Your task to perform on an android device: change keyboard looks Image 0: 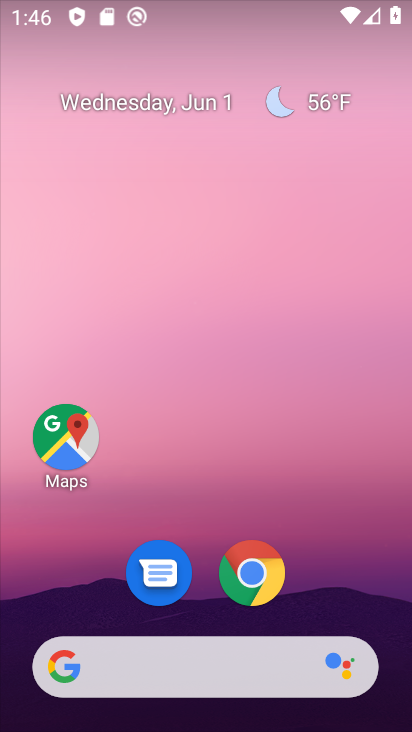
Step 0: drag from (195, 601) to (206, 195)
Your task to perform on an android device: change keyboard looks Image 1: 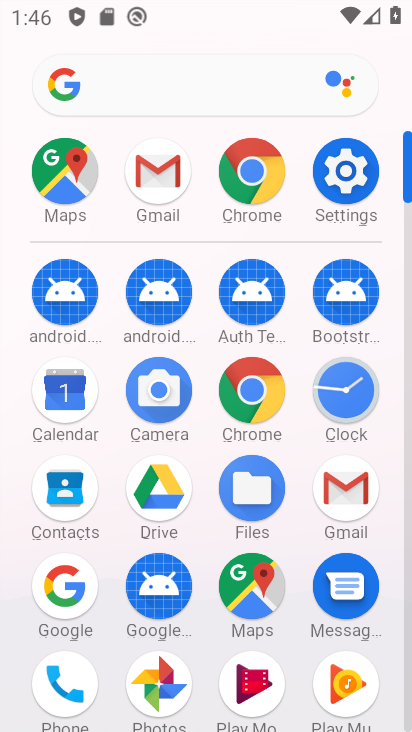
Step 1: click (349, 134)
Your task to perform on an android device: change keyboard looks Image 2: 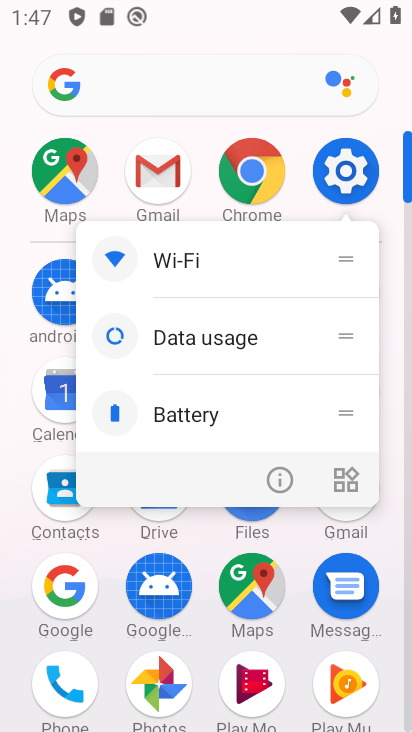
Step 2: click (293, 481)
Your task to perform on an android device: change keyboard looks Image 3: 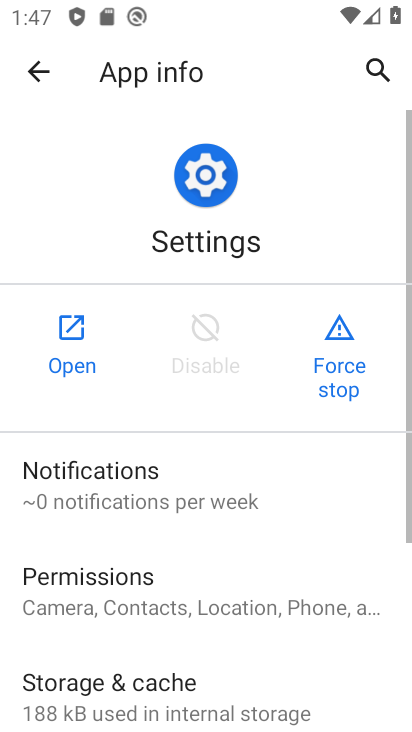
Step 3: click (70, 387)
Your task to perform on an android device: change keyboard looks Image 4: 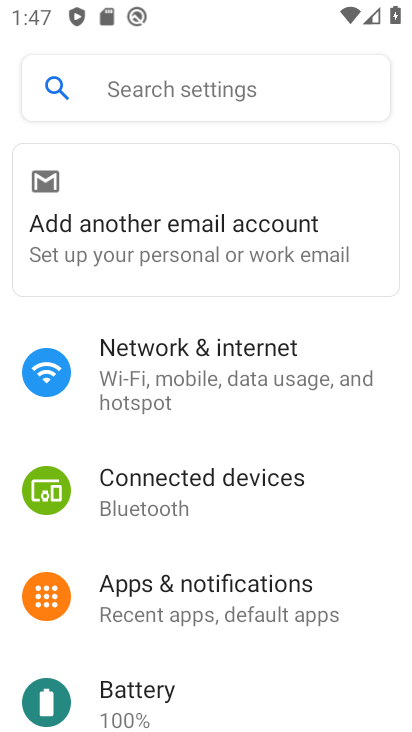
Step 4: drag from (173, 591) to (248, 51)
Your task to perform on an android device: change keyboard looks Image 5: 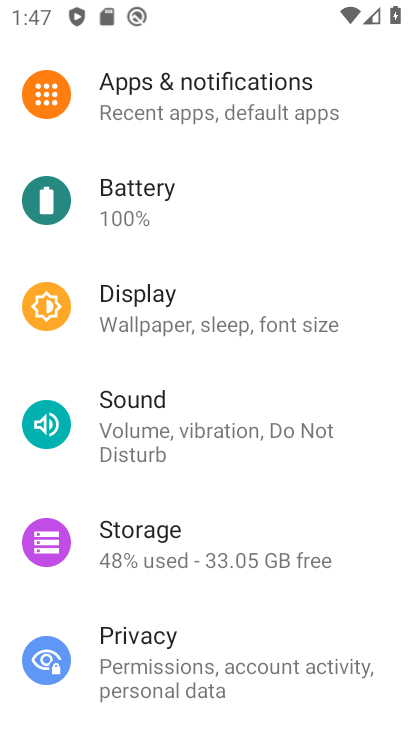
Step 5: drag from (191, 620) to (262, 190)
Your task to perform on an android device: change keyboard looks Image 6: 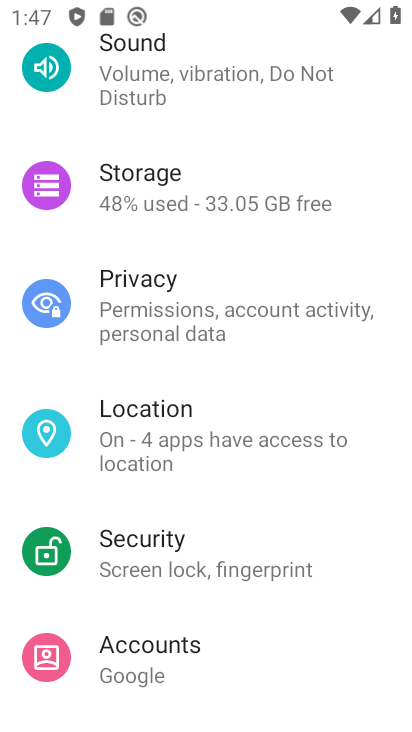
Step 6: drag from (182, 643) to (204, 141)
Your task to perform on an android device: change keyboard looks Image 7: 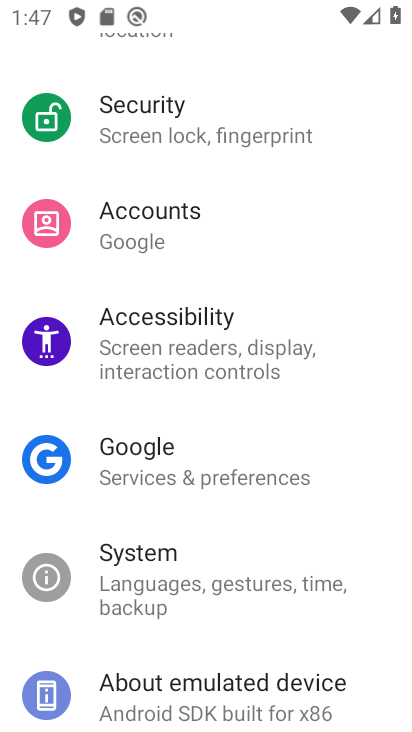
Step 7: click (159, 594)
Your task to perform on an android device: change keyboard looks Image 8: 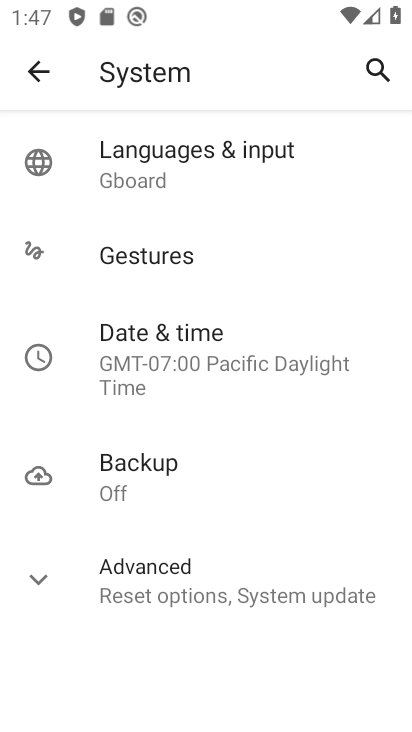
Step 8: click (188, 172)
Your task to perform on an android device: change keyboard looks Image 9: 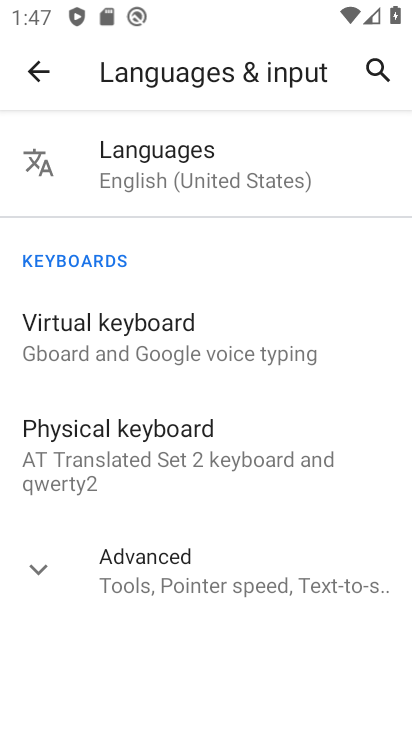
Step 9: click (170, 360)
Your task to perform on an android device: change keyboard looks Image 10: 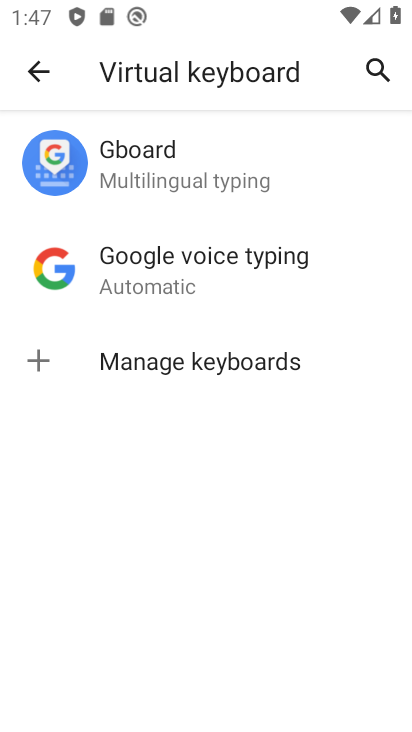
Step 10: click (206, 199)
Your task to perform on an android device: change keyboard looks Image 11: 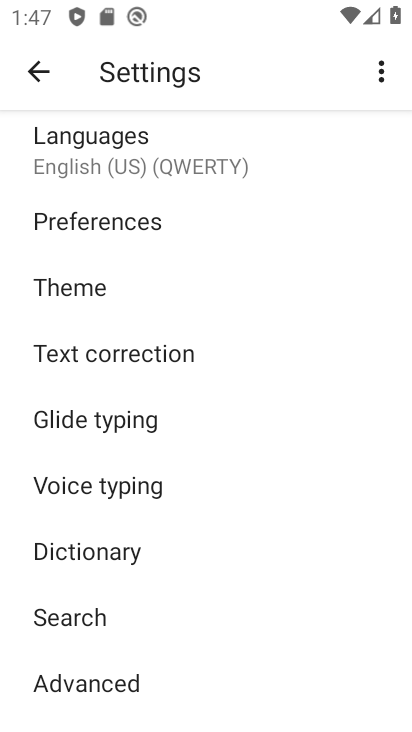
Step 11: drag from (132, 537) to (182, 2)
Your task to perform on an android device: change keyboard looks Image 12: 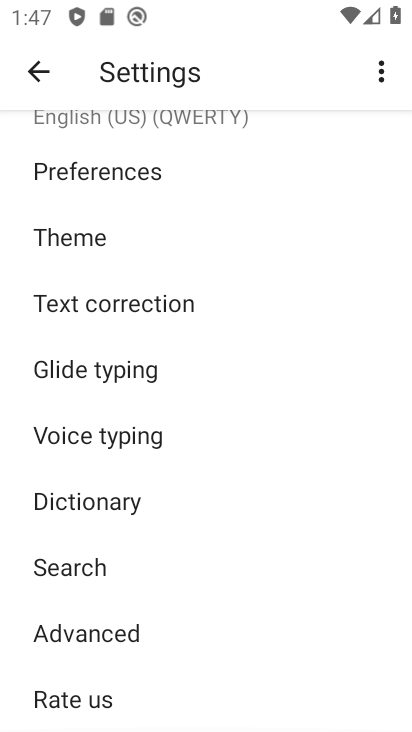
Step 12: click (105, 233)
Your task to perform on an android device: change keyboard looks Image 13: 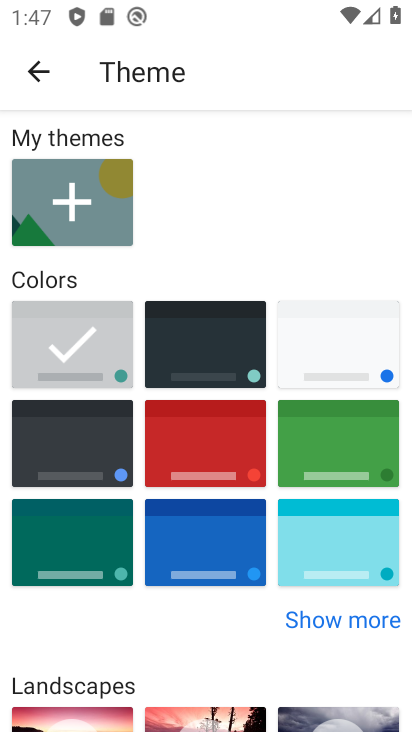
Step 13: drag from (252, 500) to (250, 200)
Your task to perform on an android device: change keyboard looks Image 14: 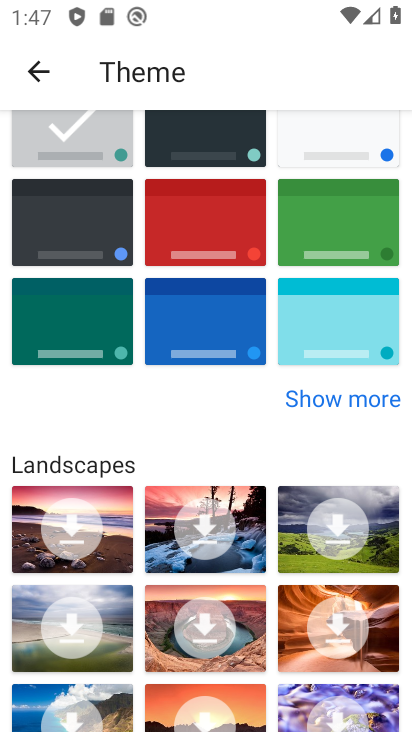
Step 14: click (163, 149)
Your task to perform on an android device: change keyboard looks Image 15: 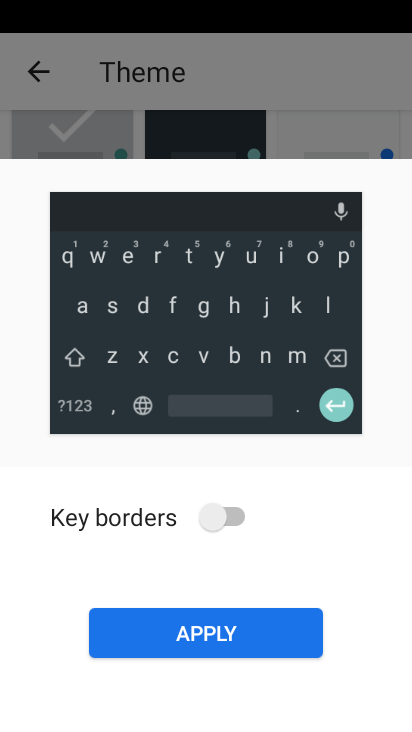
Step 15: click (201, 652)
Your task to perform on an android device: change keyboard looks Image 16: 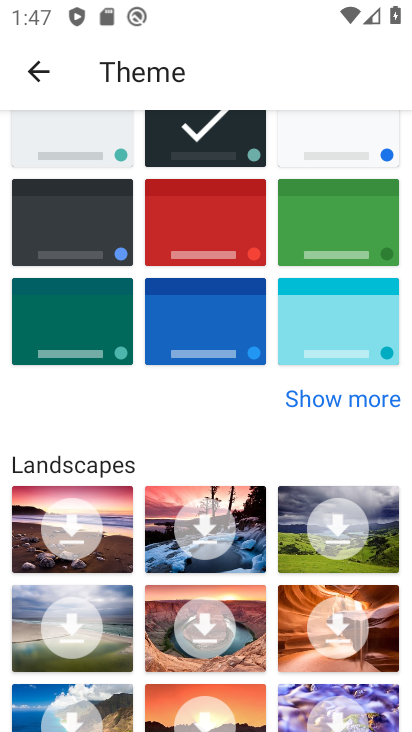
Step 16: task complete